Your task to perform on an android device: turn off priority inbox in the gmail app Image 0: 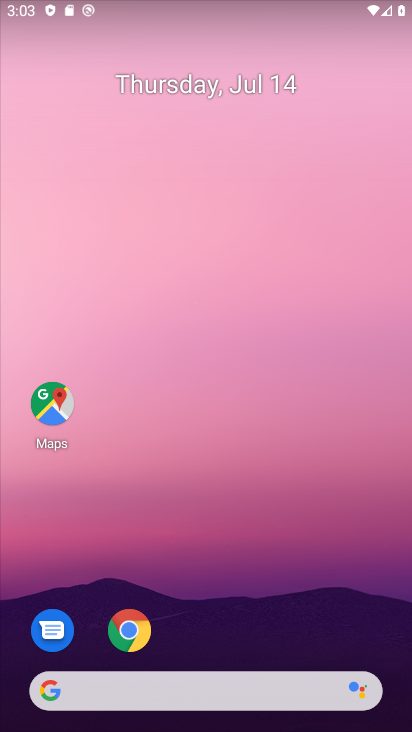
Step 0: drag from (316, 610) to (218, 163)
Your task to perform on an android device: turn off priority inbox in the gmail app Image 1: 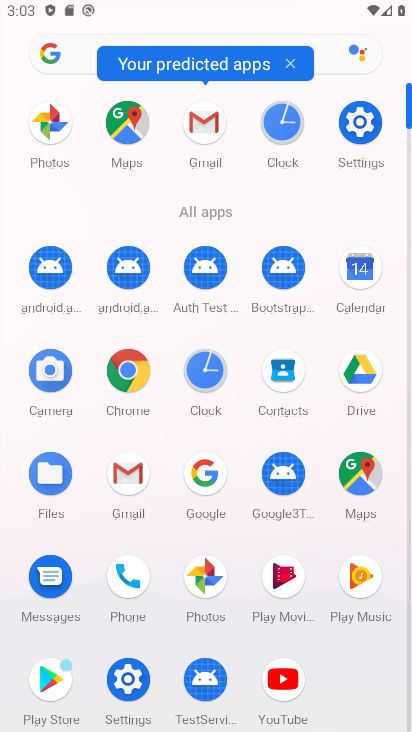
Step 1: click (203, 112)
Your task to perform on an android device: turn off priority inbox in the gmail app Image 2: 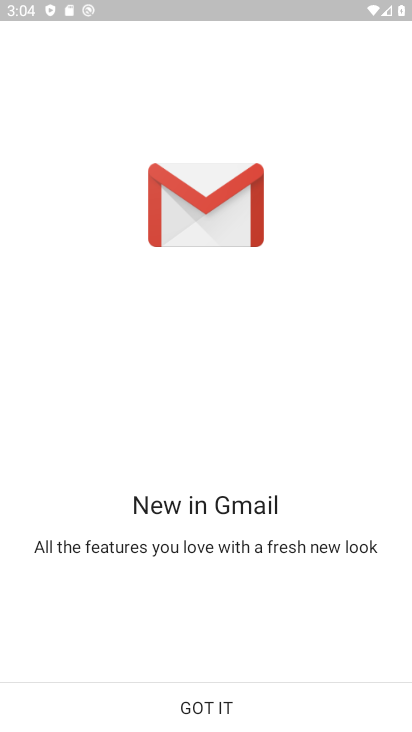
Step 2: click (263, 711)
Your task to perform on an android device: turn off priority inbox in the gmail app Image 3: 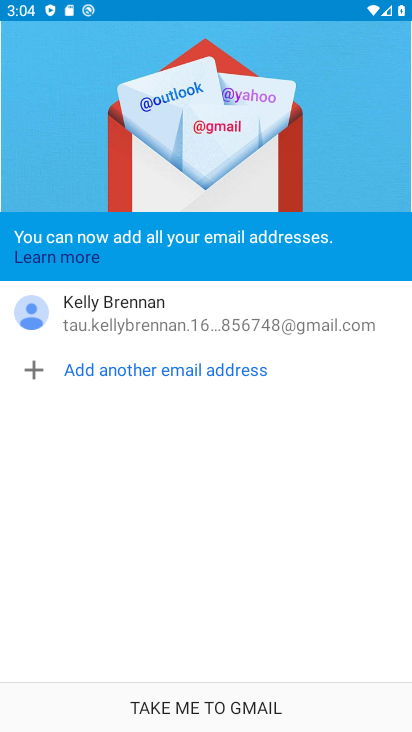
Step 3: click (259, 686)
Your task to perform on an android device: turn off priority inbox in the gmail app Image 4: 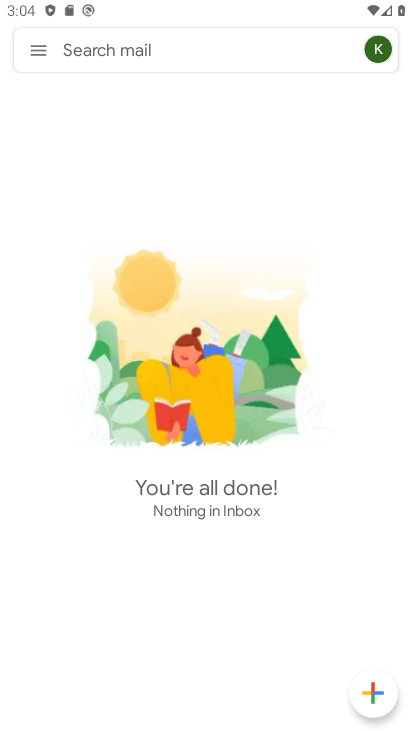
Step 4: click (32, 46)
Your task to perform on an android device: turn off priority inbox in the gmail app Image 5: 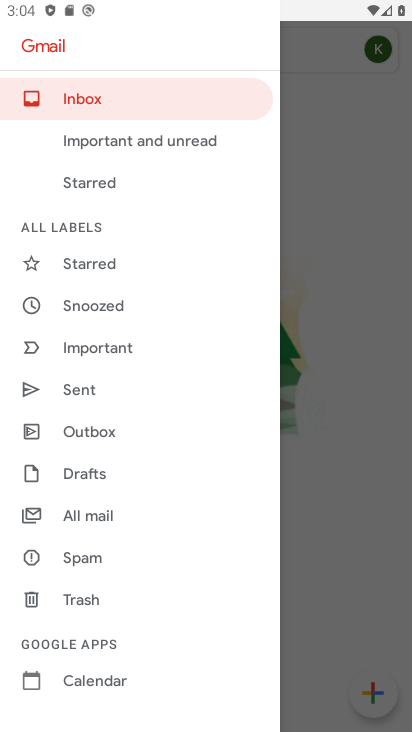
Step 5: drag from (200, 479) to (157, 101)
Your task to perform on an android device: turn off priority inbox in the gmail app Image 6: 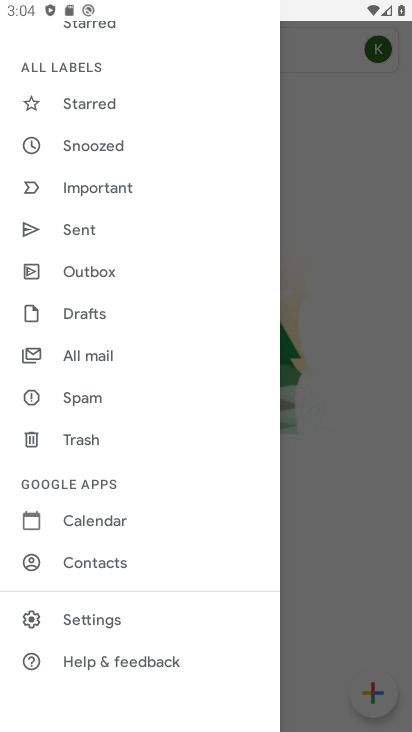
Step 6: click (86, 625)
Your task to perform on an android device: turn off priority inbox in the gmail app Image 7: 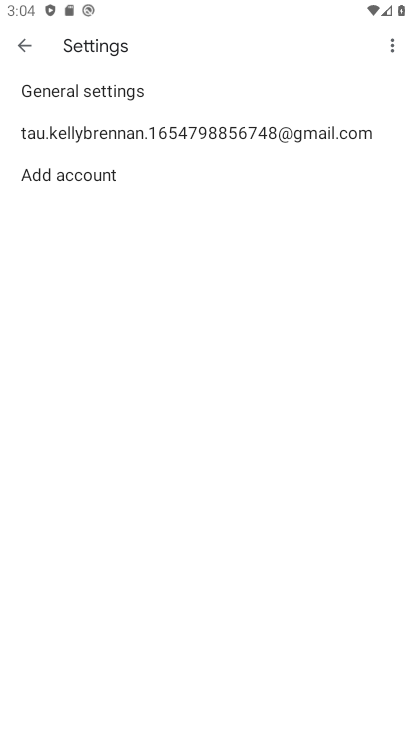
Step 7: click (151, 136)
Your task to perform on an android device: turn off priority inbox in the gmail app Image 8: 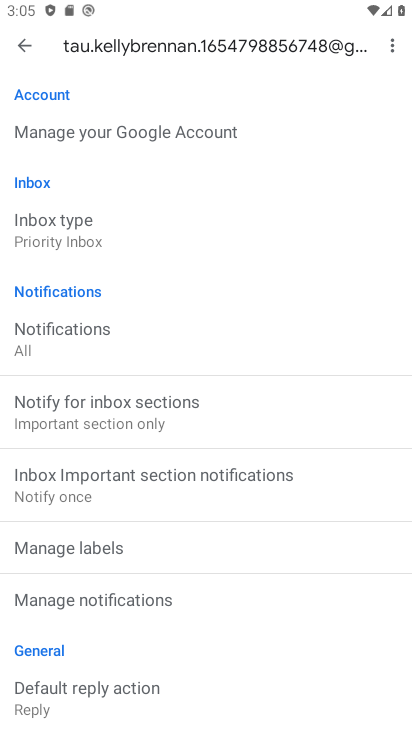
Step 8: click (63, 237)
Your task to perform on an android device: turn off priority inbox in the gmail app Image 9: 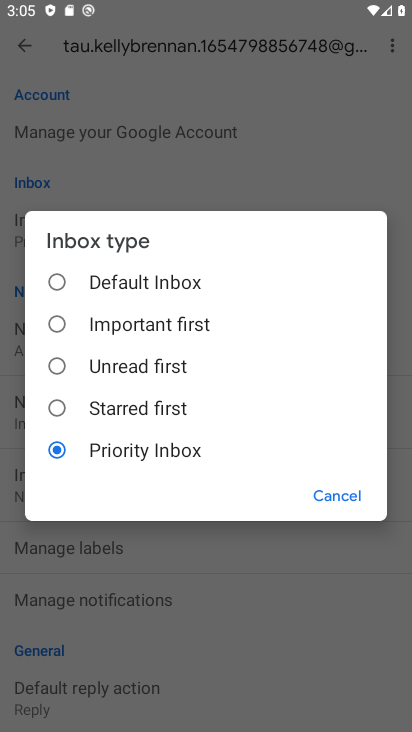
Step 9: click (102, 275)
Your task to perform on an android device: turn off priority inbox in the gmail app Image 10: 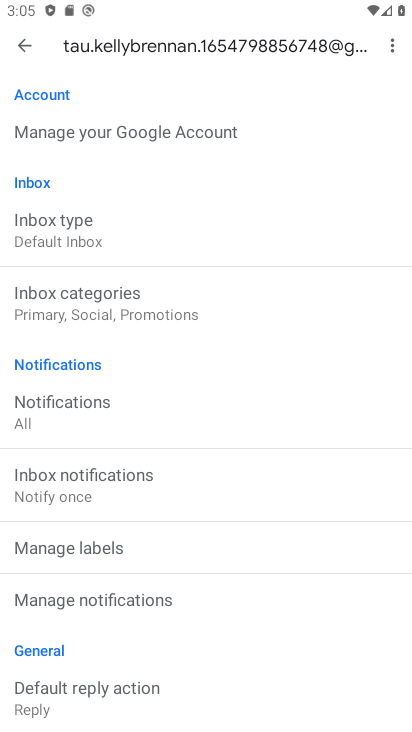
Step 10: task complete